Your task to perform on an android device: refresh tabs in the chrome app Image 0: 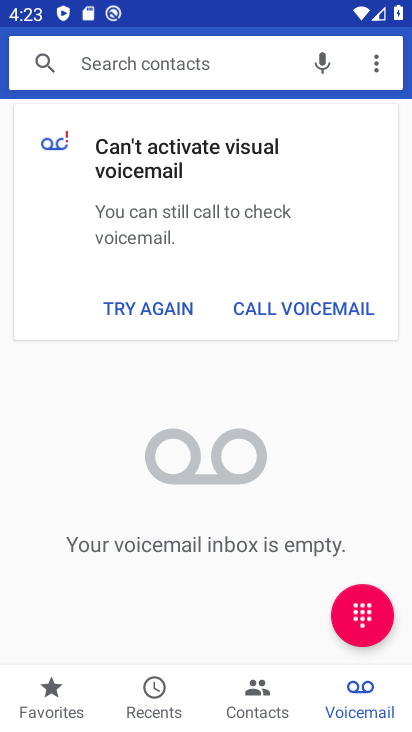
Step 0: press home button
Your task to perform on an android device: refresh tabs in the chrome app Image 1: 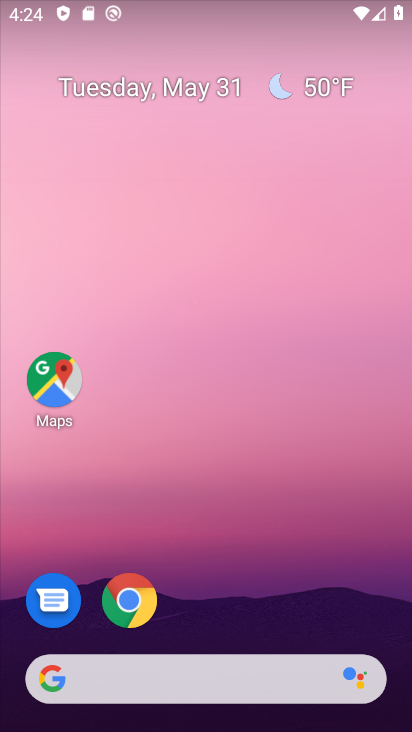
Step 1: click (131, 603)
Your task to perform on an android device: refresh tabs in the chrome app Image 2: 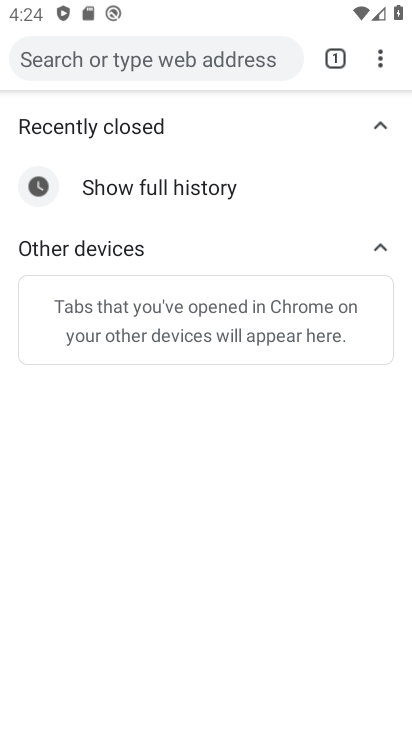
Step 2: click (377, 56)
Your task to perform on an android device: refresh tabs in the chrome app Image 3: 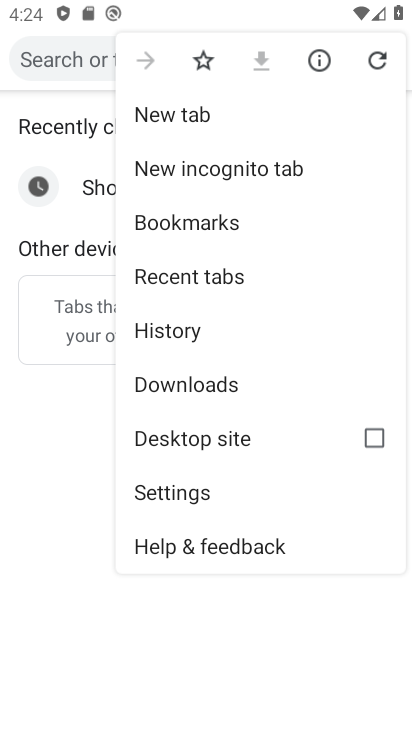
Step 3: click (375, 66)
Your task to perform on an android device: refresh tabs in the chrome app Image 4: 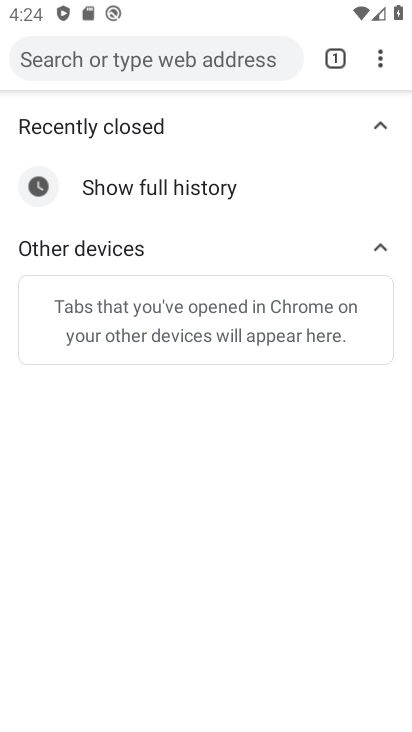
Step 4: task complete